Your task to perform on an android device: Open Chrome and go to settings Image 0: 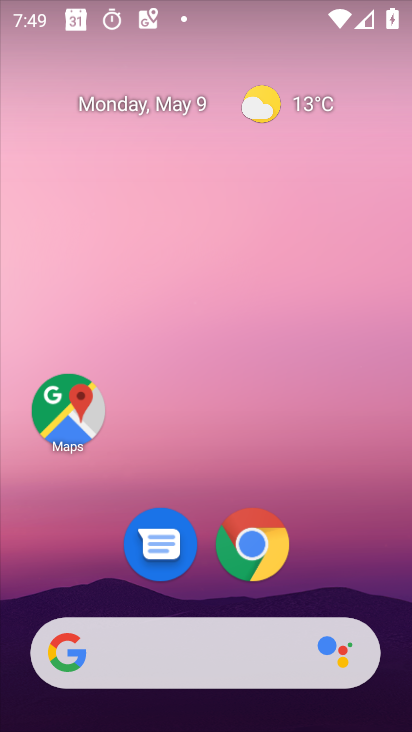
Step 0: click (258, 541)
Your task to perform on an android device: Open Chrome and go to settings Image 1: 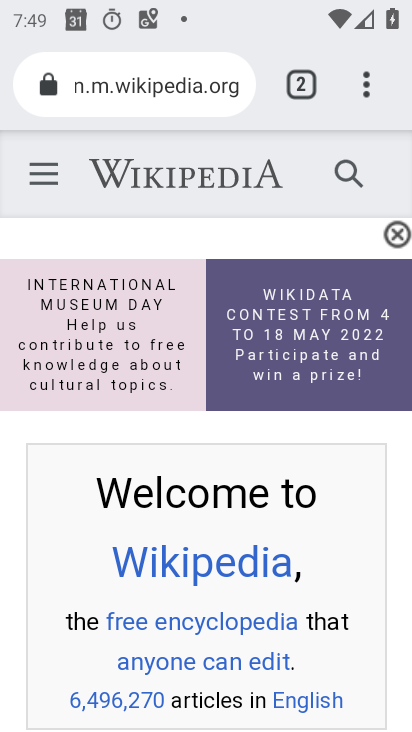
Step 1: task complete